Your task to perform on an android device: Search for sushi restaurants on Maps Image 0: 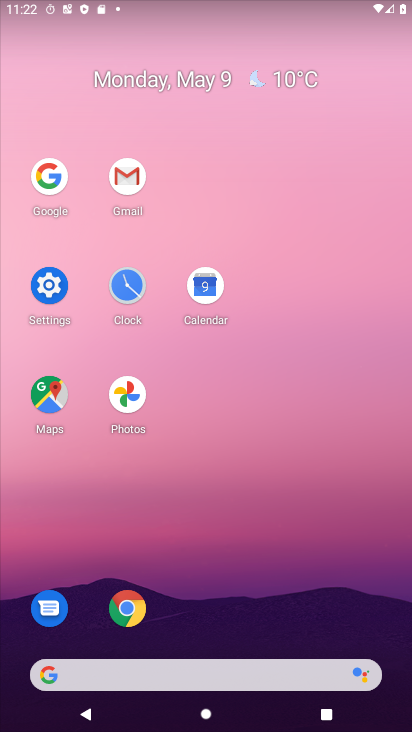
Step 0: click (55, 394)
Your task to perform on an android device: Search for sushi restaurants on Maps Image 1: 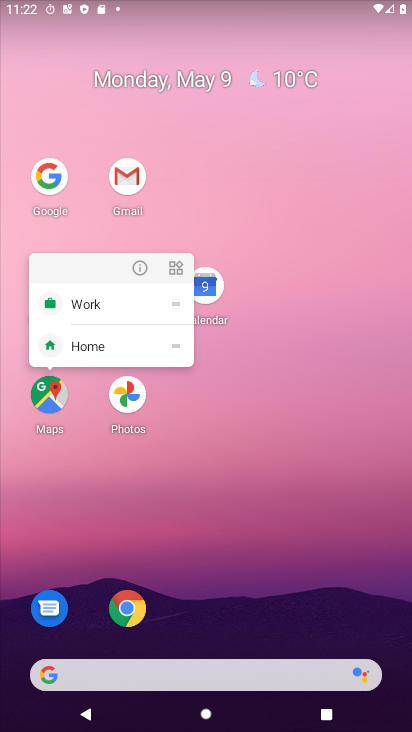
Step 1: click (37, 396)
Your task to perform on an android device: Search for sushi restaurants on Maps Image 2: 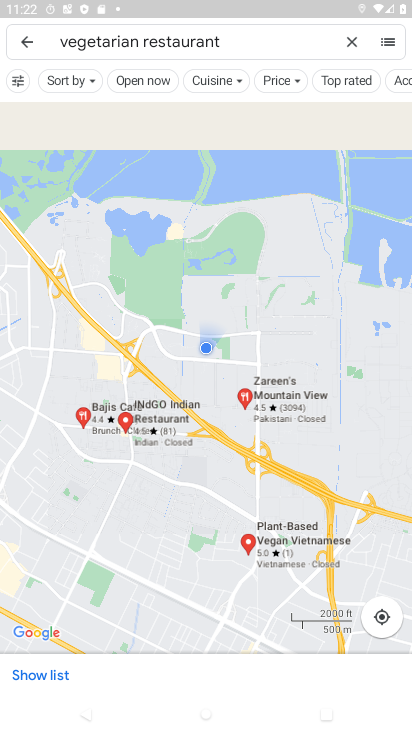
Step 2: click (357, 49)
Your task to perform on an android device: Search for sushi restaurants on Maps Image 3: 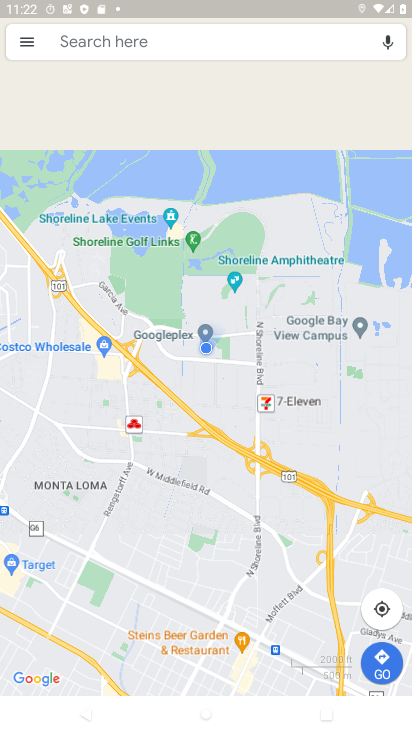
Step 3: click (193, 39)
Your task to perform on an android device: Search for sushi restaurants on Maps Image 4: 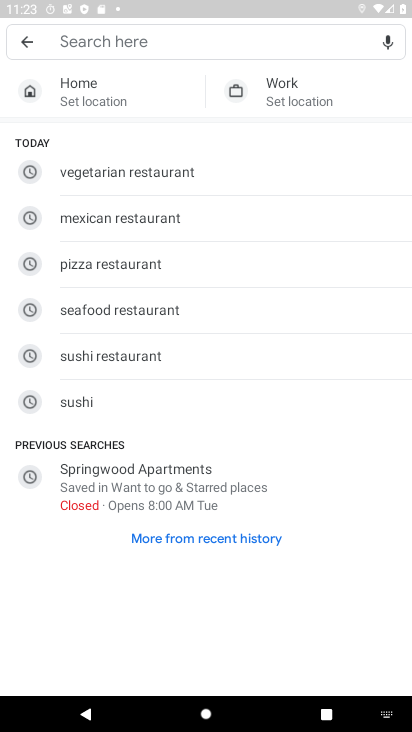
Step 4: click (106, 355)
Your task to perform on an android device: Search for sushi restaurants on Maps Image 5: 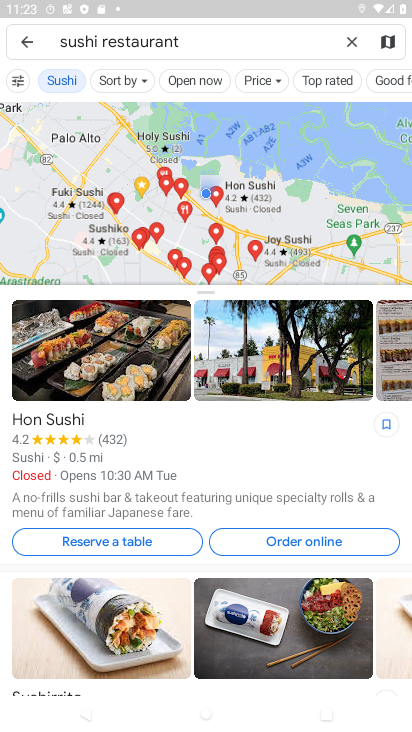
Step 5: task complete